Your task to perform on an android device: Open Youtube and go to the subscriptions tab Image 0: 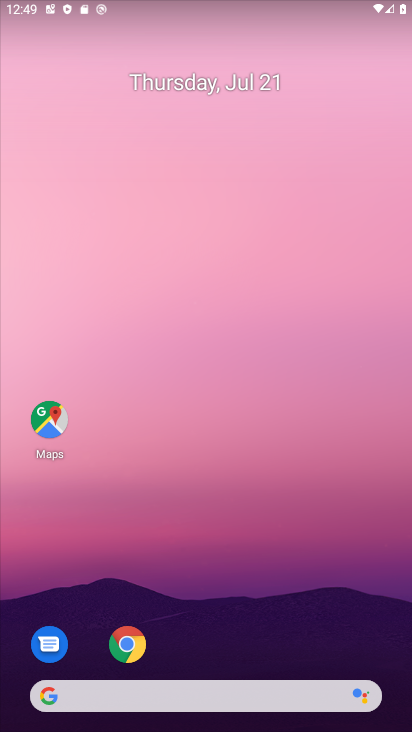
Step 0: press home button
Your task to perform on an android device: Open Youtube and go to the subscriptions tab Image 1: 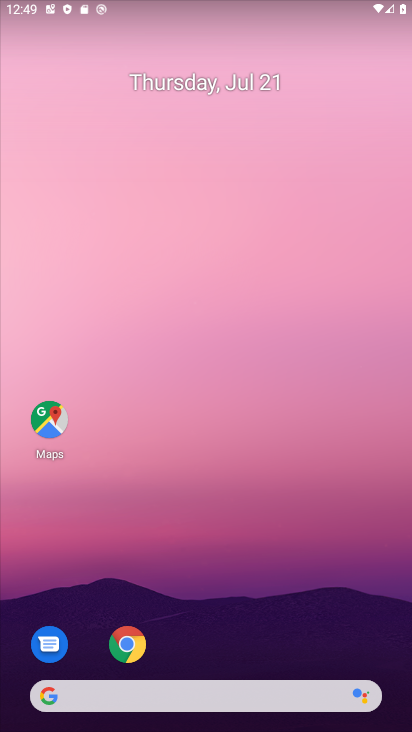
Step 1: press home button
Your task to perform on an android device: Open Youtube and go to the subscriptions tab Image 2: 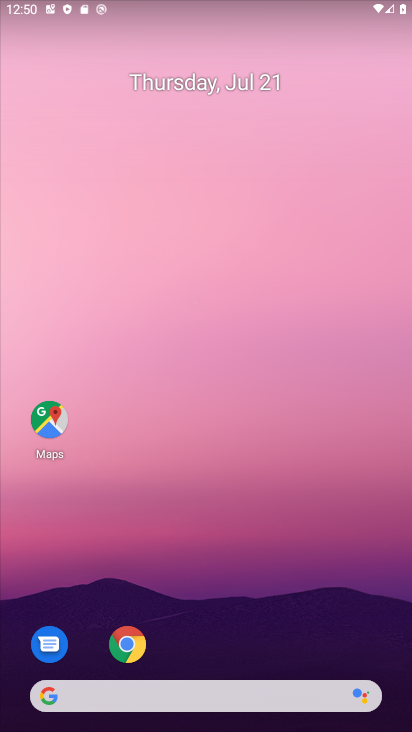
Step 2: drag from (234, 629) to (87, 148)
Your task to perform on an android device: Open Youtube and go to the subscriptions tab Image 3: 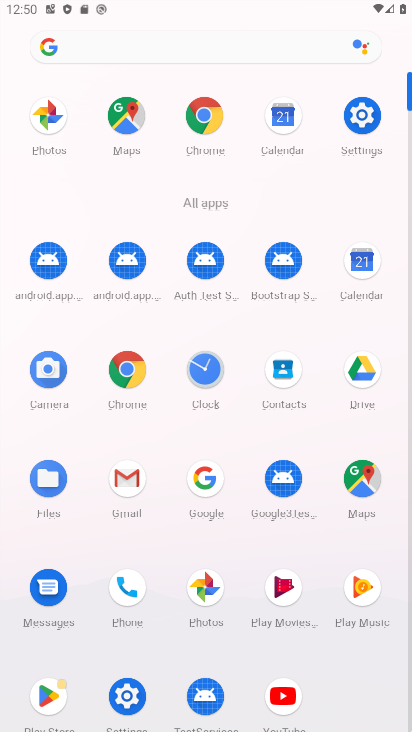
Step 3: click (300, 700)
Your task to perform on an android device: Open Youtube and go to the subscriptions tab Image 4: 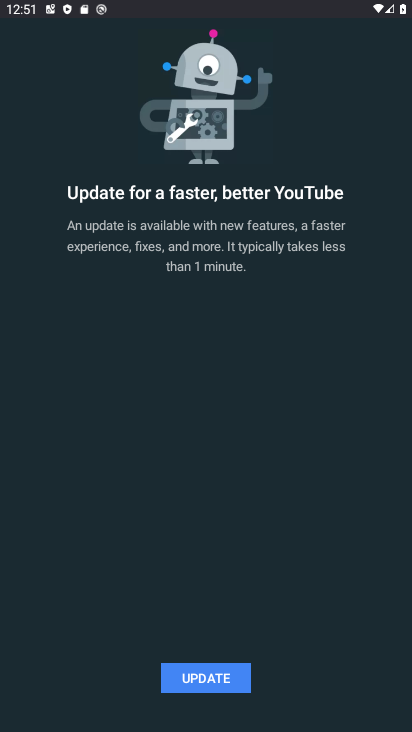
Step 4: click (241, 685)
Your task to perform on an android device: Open Youtube and go to the subscriptions tab Image 5: 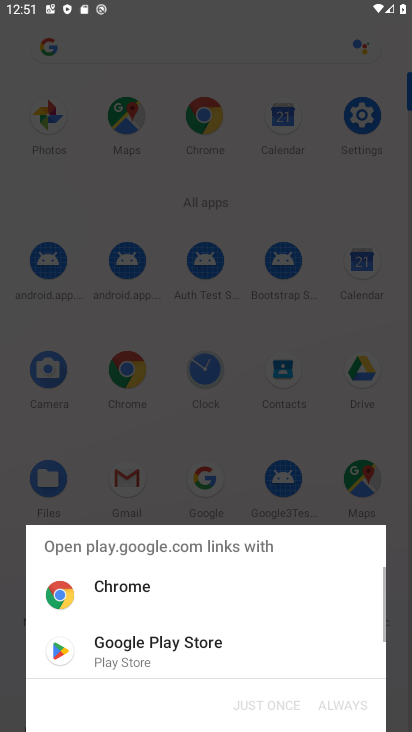
Step 5: click (246, 654)
Your task to perform on an android device: Open Youtube and go to the subscriptions tab Image 6: 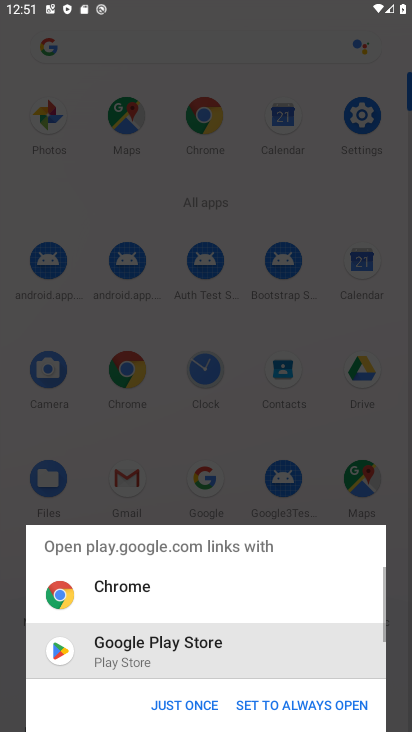
Step 6: click (146, 704)
Your task to perform on an android device: Open Youtube and go to the subscriptions tab Image 7: 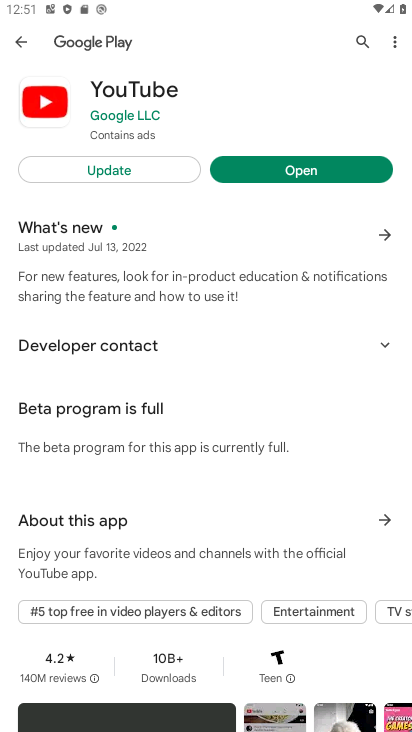
Step 7: click (92, 169)
Your task to perform on an android device: Open Youtube and go to the subscriptions tab Image 8: 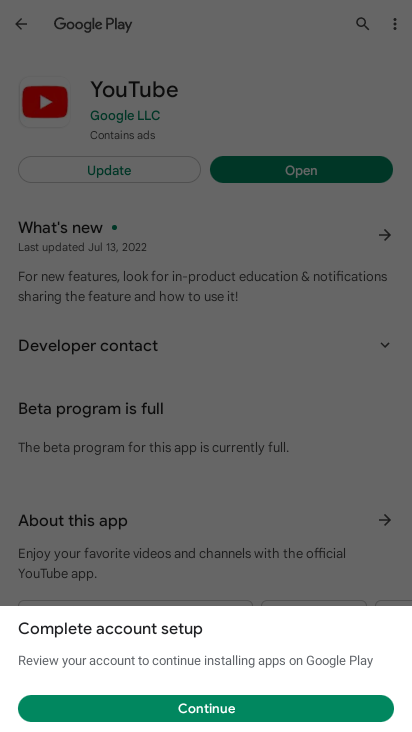
Step 8: click (300, 171)
Your task to perform on an android device: Open Youtube and go to the subscriptions tab Image 9: 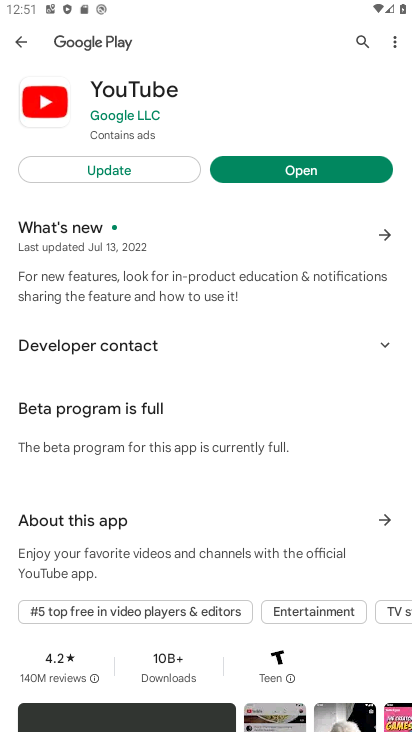
Step 9: click (78, 166)
Your task to perform on an android device: Open Youtube and go to the subscriptions tab Image 10: 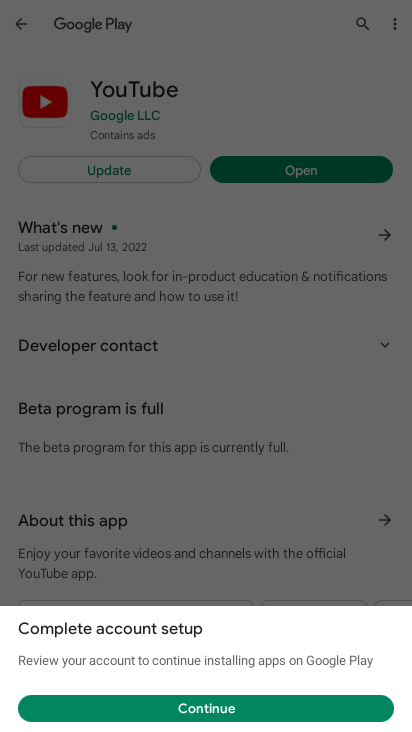
Step 10: click (176, 705)
Your task to perform on an android device: Open Youtube and go to the subscriptions tab Image 11: 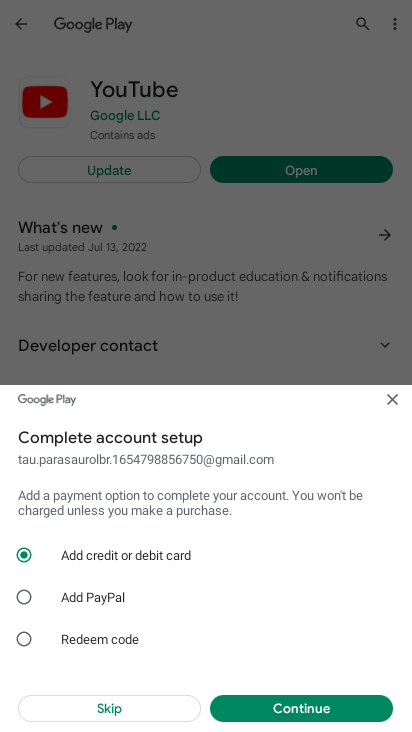
Step 11: click (112, 698)
Your task to perform on an android device: Open Youtube and go to the subscriptions tab Image 12: 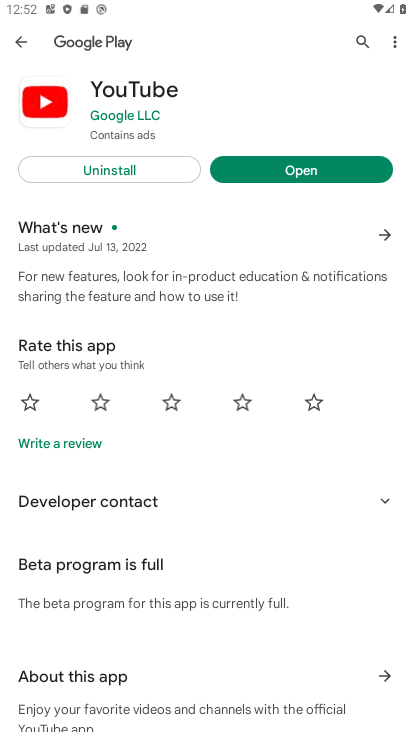
Step 12: click (294, 178)
Your task to perform on an android device: Open Youtube and go to the subscriptions tab Image 13: 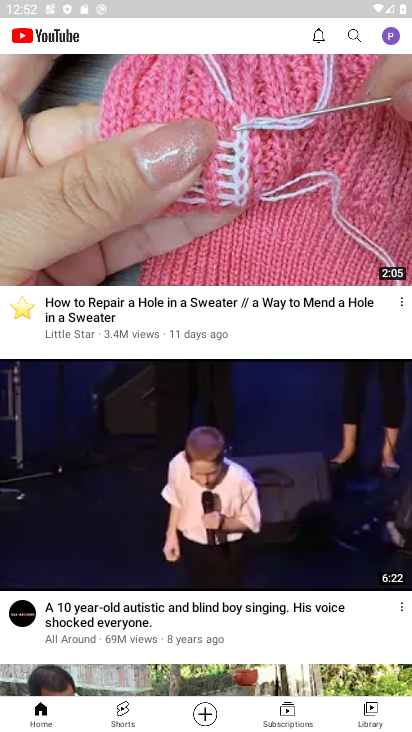
Step 13: click (278, 722)
Your task to perform on an android device: Open Youtube and go to the subscriptions tab Image 14: 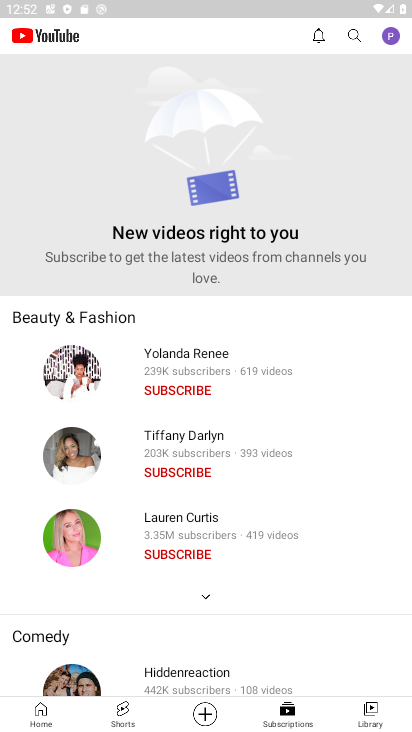
Step 14: task complete